Your task to perform on an android device: open the mobile data screen to see how much data has been used Image 0: 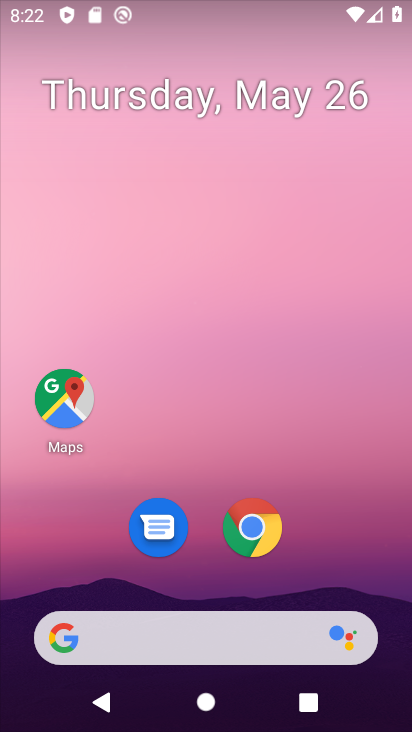
Step 0: drag from (273, 357) to (276, 91)
Your task to perform on an android device: open the mobile data screen to see how much data has been used Image 1: 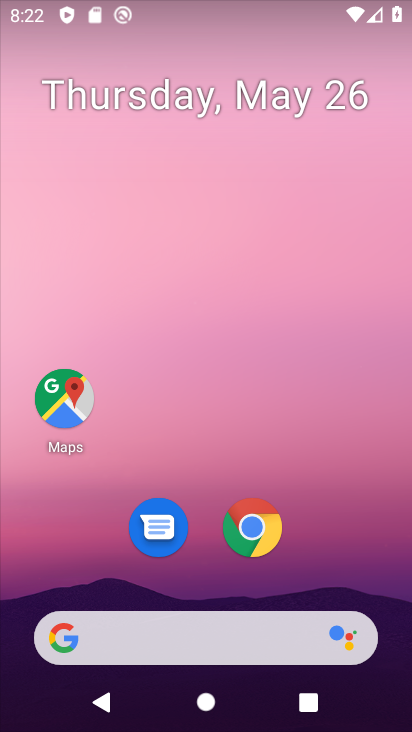
Step 1: drag from (333, 483) to (311, 27)
Your task to perform on an android device: open the mobile data screen to see how much data has been used Image 2: 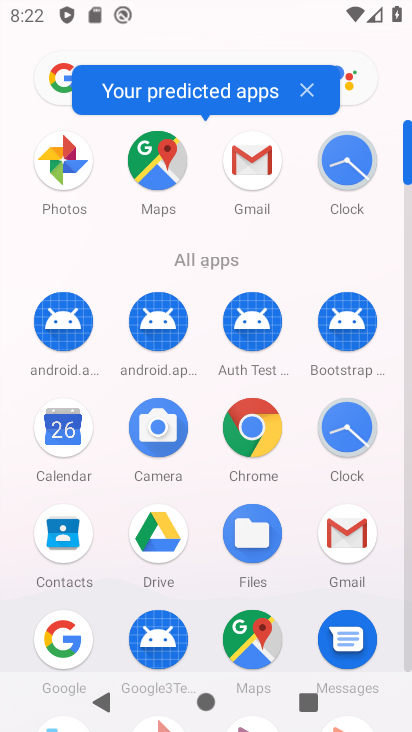
Step 2: drag from (190, 562) to (245, 255)
Your task to perform on an android device: open the mobile data screen to see how much data has been used Image 3: 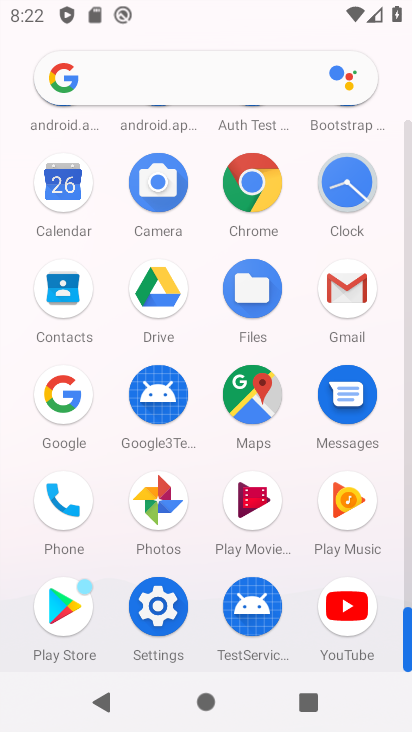
Step 3: click (153, 604)
Your task to perform on an android device: open the mobile data screen to see how much data has been used Image 4: 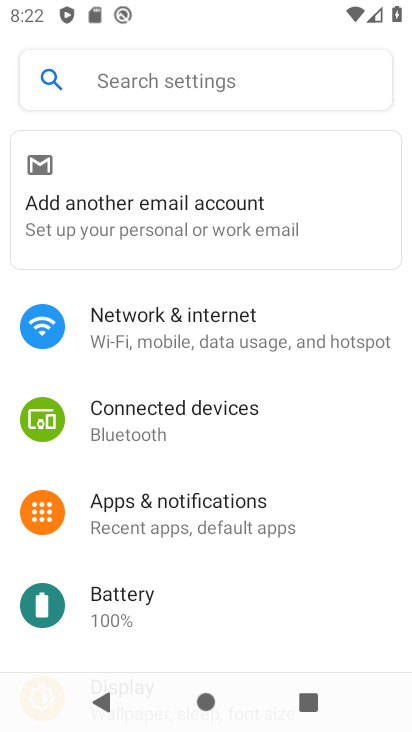
Step 4: click (189, 327)
Your task to perform on an android device: open the mobile data screen to see how much data has been used Image 5: 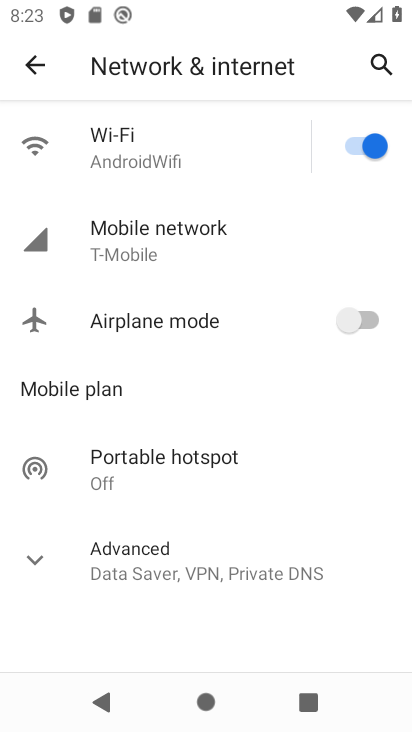
Step 5: click (186, 255)
Your task to perform on an android device: open the mobile data screen to see how much data has been used Image 6: 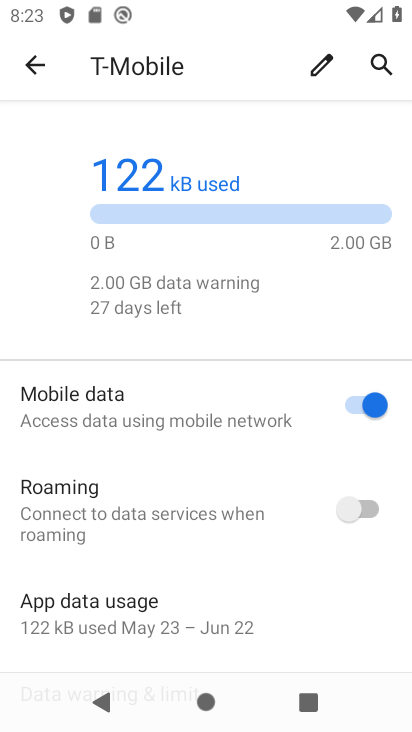
Step 6: task complete